Your task to perform on an android device: visit the assistant section in the google photos Image 0: 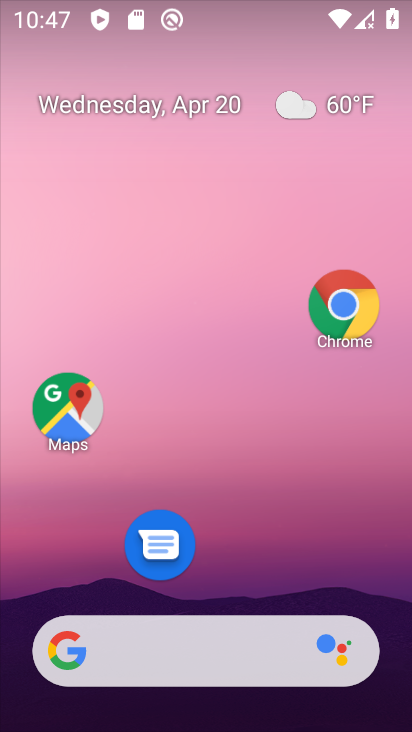
Step 0: drag from (255, 636) to (324, 238)
Your task to perform on an android device: visit the assistant section in the google photos Image 1: 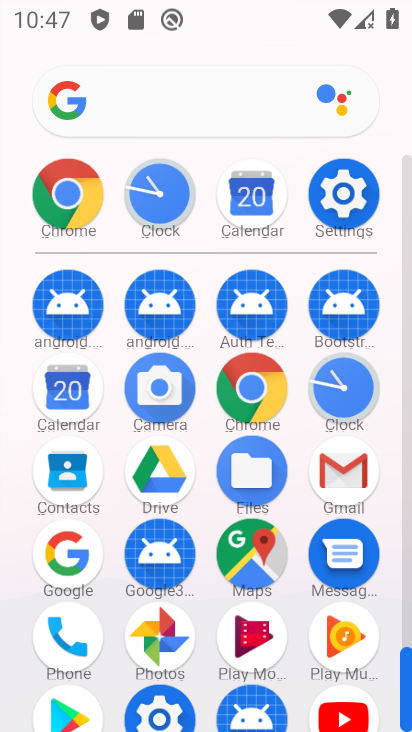
Step 1: click (161, 633)
Your task to perform on an android device: visit the assistant section in the google photos Image 2: 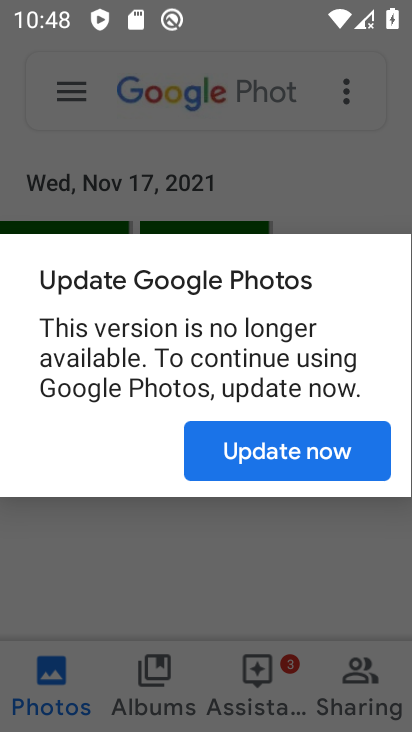
Step 2: click (254, 543)
Your task to perform on an android device: visit the assistant section in the google photos Image 3: 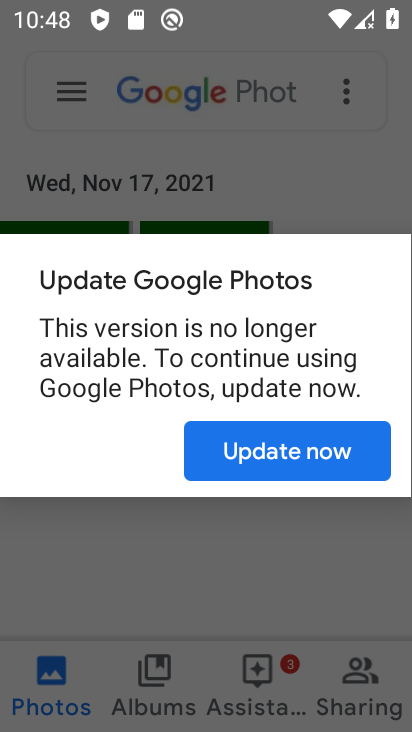
Step 3: click (254, 543)
Your task to perform on an android device: visit the assistant section in the google photos Image 4: 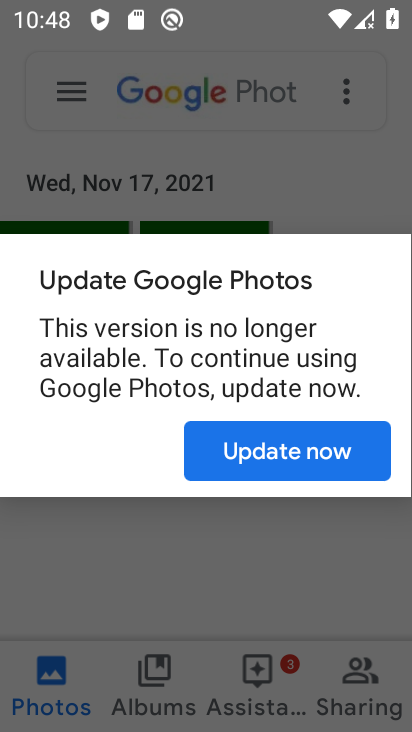
Step 4: task complete